Your task to perform on an android device: turn pop-ups off in chrome Image 0: 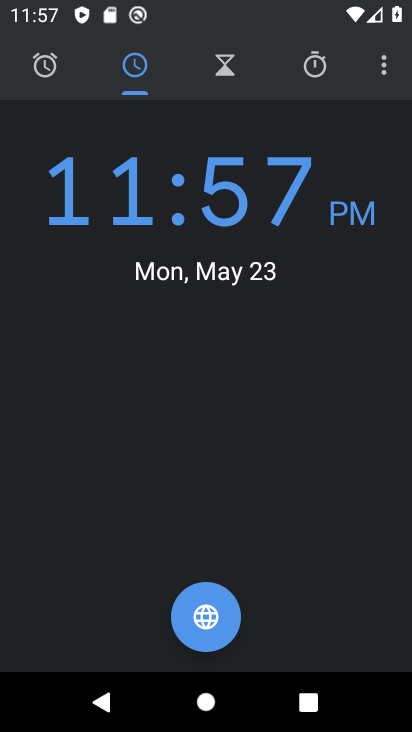
Step 0: press home button
Your task to perform on an android device: turn pop-ups off in chrome Image 1: 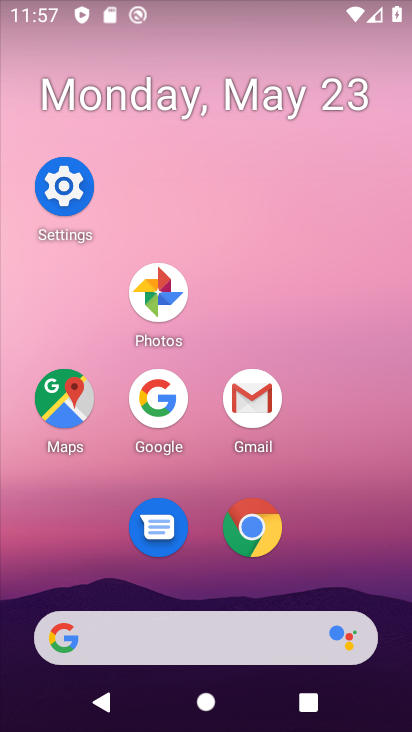
Step 1: click (253, 539)
Your task to perform on an android device: turn pop-ups off in chrome Image 2: 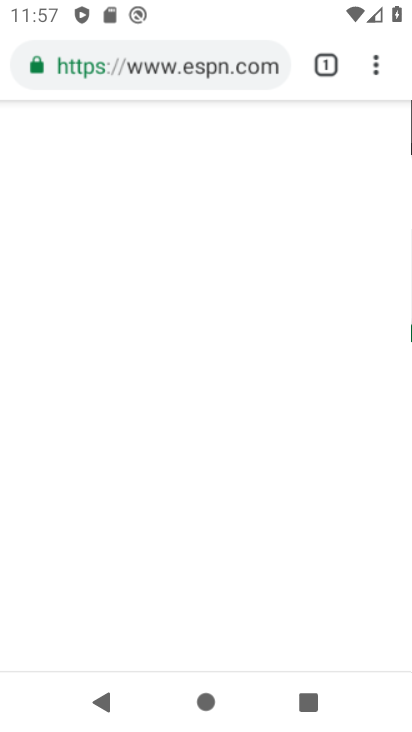
Step 2: click (382, 63)
Your task to perform on an android device: turn pop-ups off in chrome Image 3: 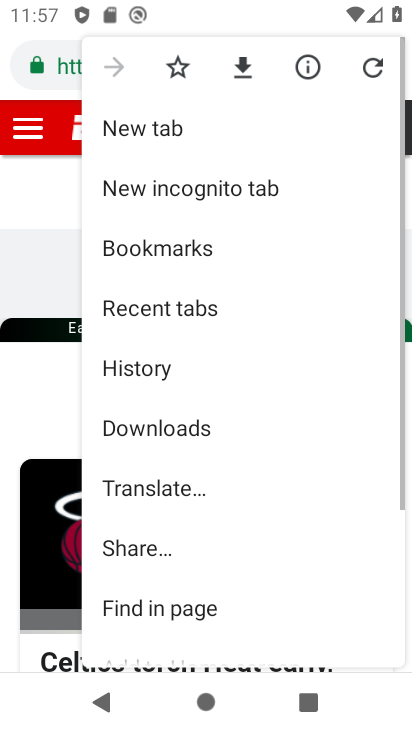
Step 3: drag from (254, 494) to (294, 150)
Your task to perform on an android device: turn pop-ups off in chrome Image 4: 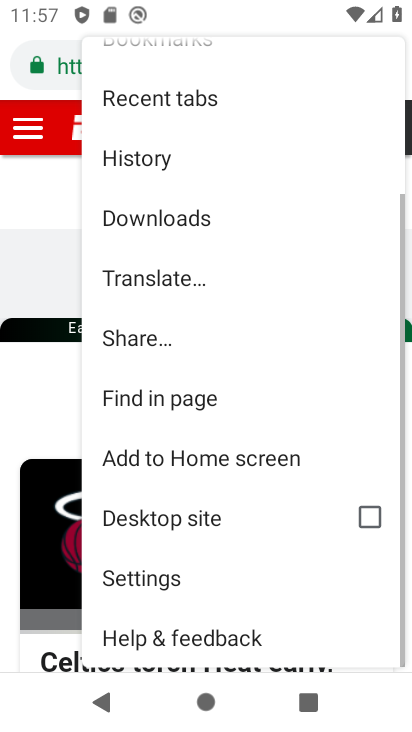
Step 4: click (211, 572)
Your task to perform on an android device: turn pop-ups off in chrome Image 5: 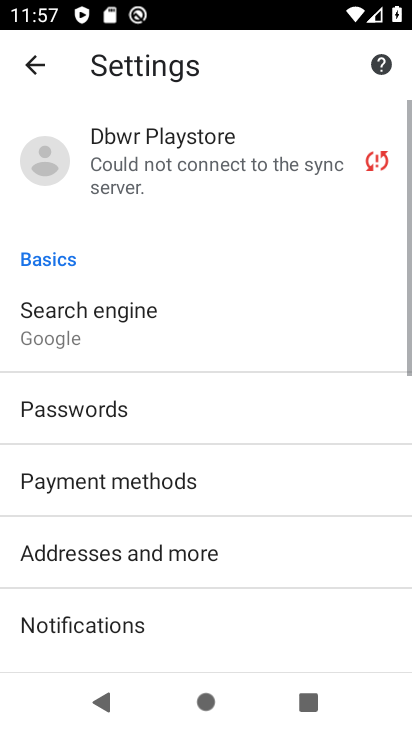
Step 5: drag from (211, 572) to (248, 242)
Your task to perform on an android device: turn pop-ups off in chrome Image 6: 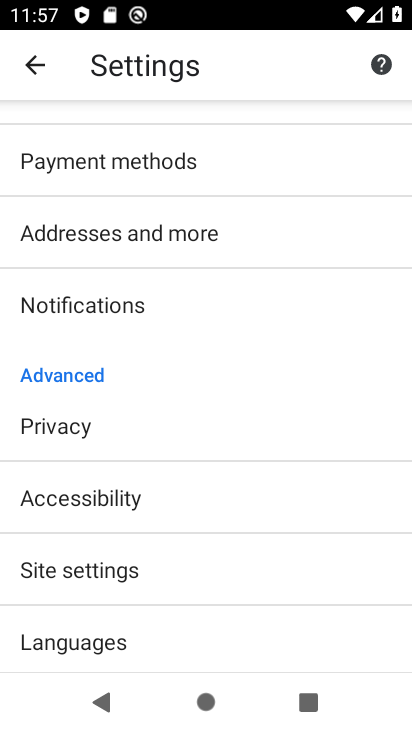
Step 6: click (198, 565)
Your task to perform on an android device: turn pop-ups off in chrome Image 7: 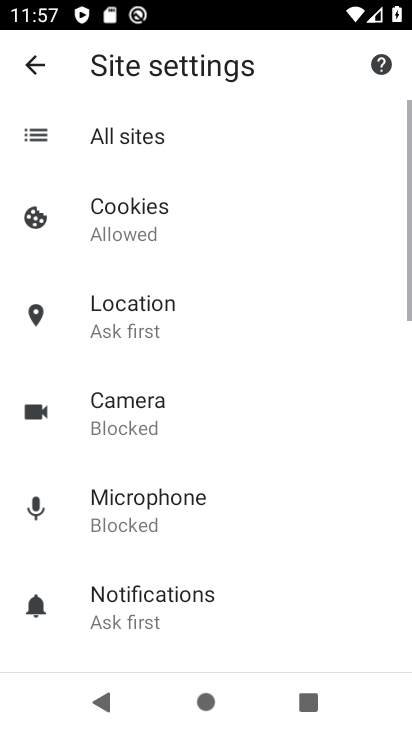
Step 7: drag from (198, 565) to (224, 207)
Your task to perform on an android device: turn pop-ups off in chrome Image 8: 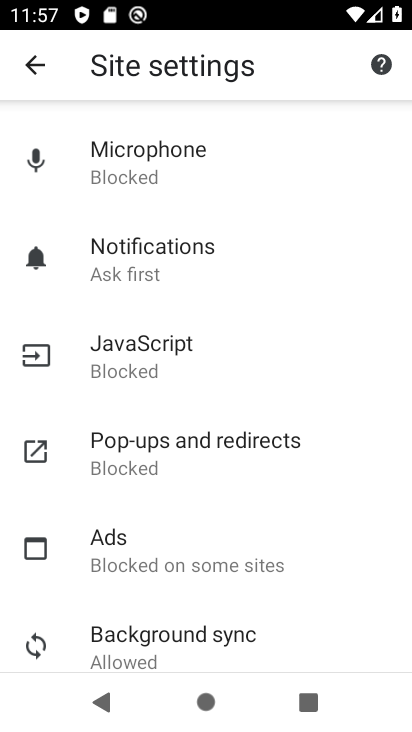
Step 8: drag from (189, 618) to (207, 352)
Your task to perform on an android device: turn pop-ups off in chrome Image 9: 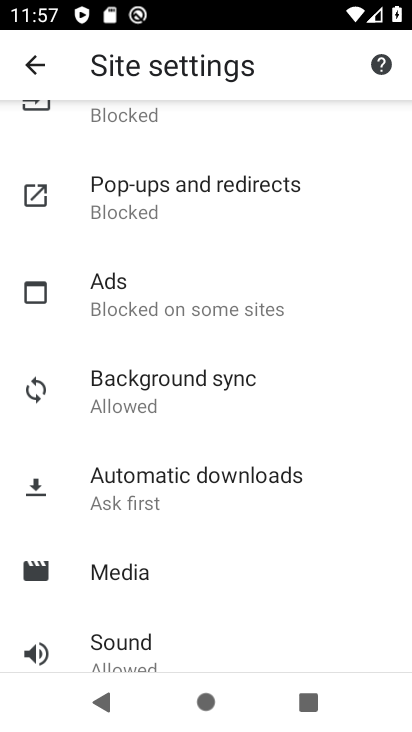
Step 9: drag from (205, 559) to (227, 357)
Your task to perform on an android device: turn pop-ups off in chrome Image 10: 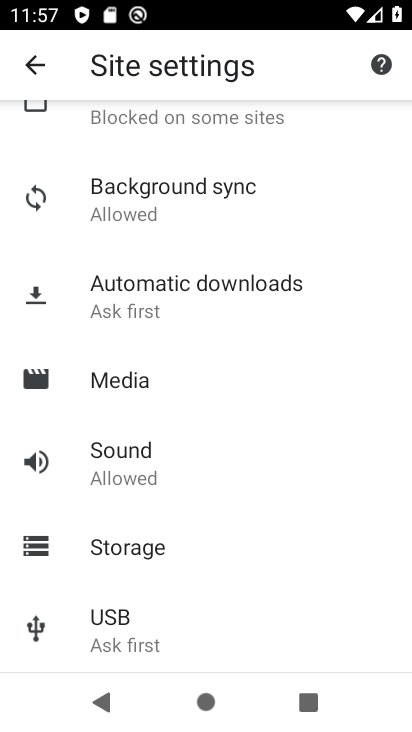
Step 10: drag from (304, 330) to (282, 664)
Your task to perform on an android device: turn pop-ups off in chrome Image 11: 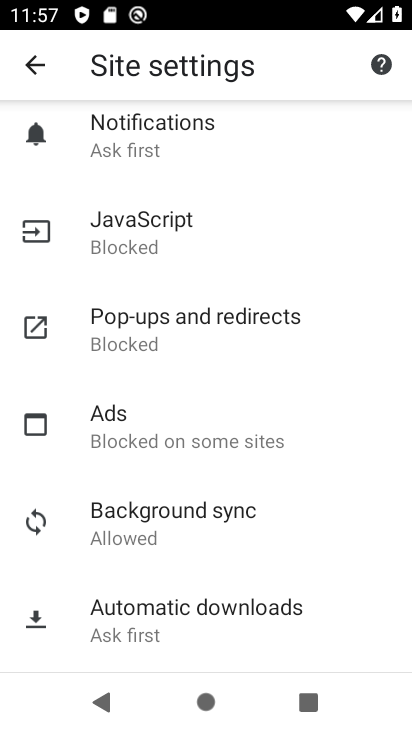
Step 11: click (284, 357)
Your task to perform on an android device: turn pop-ups off in chrome Image 12: 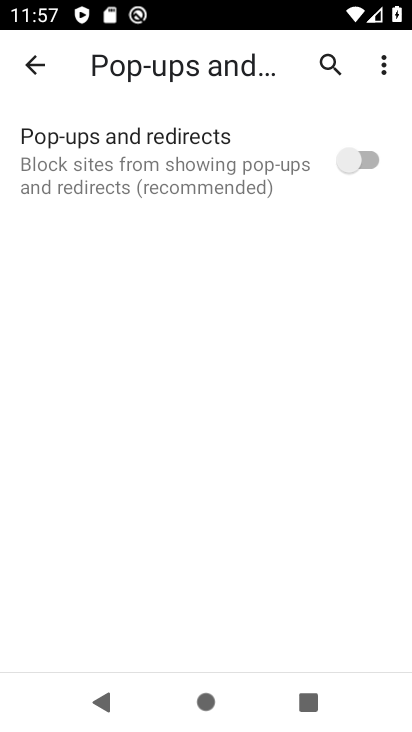
Step 12: task complete